Your task to perform on an android device: Open calendar and show me the second week of next month Image 0: 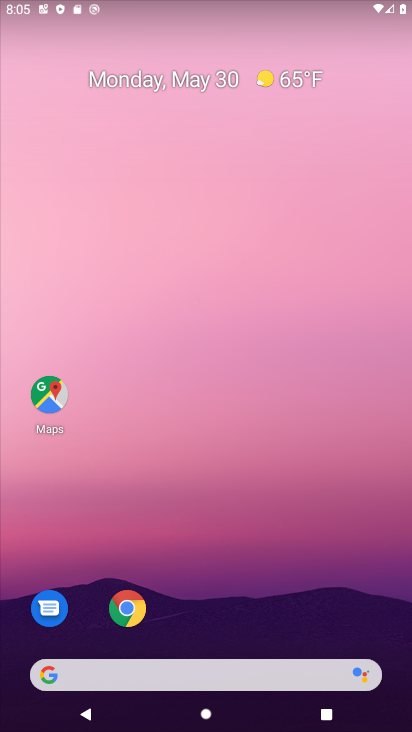
Step 0: drag from (219, 625) to (180, 179)
Your task to perform on an android device: Open calendar and show me the second week of next month Image 1: 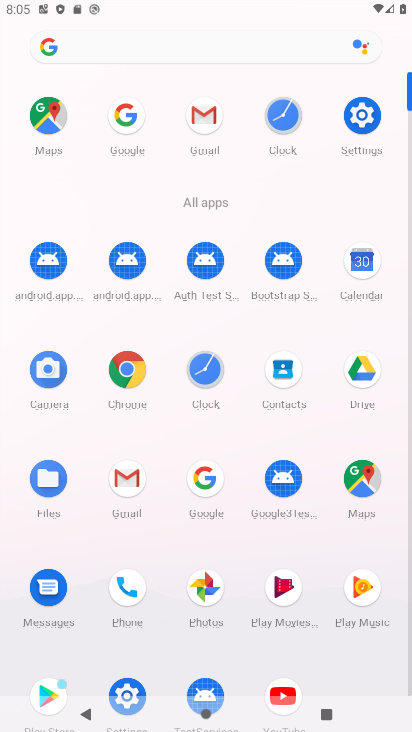
Step 1: click (343, 282)
Your task to perform on an android device: Open calendar and show me the second week of next month Image 2: 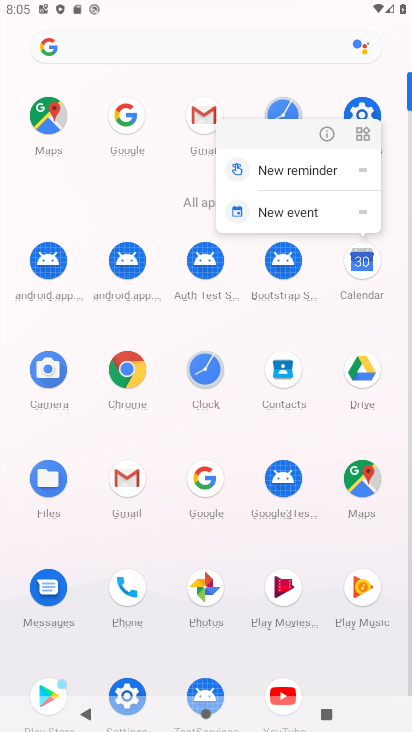
Step 2: click (343, 282)
Your task to perform on an android device: Open calendar and show me the second week of next month Image 3: 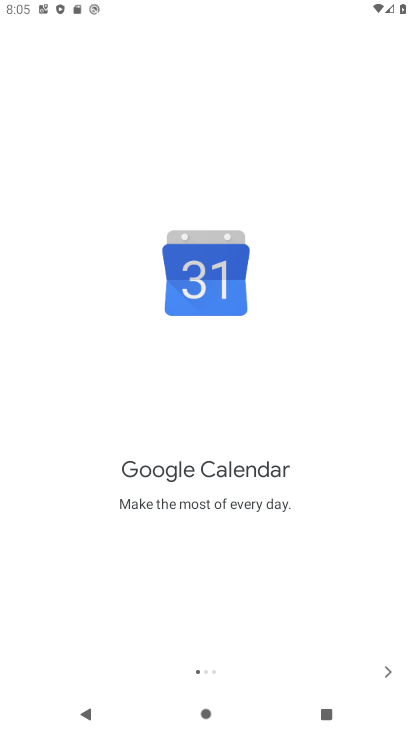
Step 3: click (378, 671)
Your task to perform on an android device: Open calendar and show me the second week of next month Image 4: 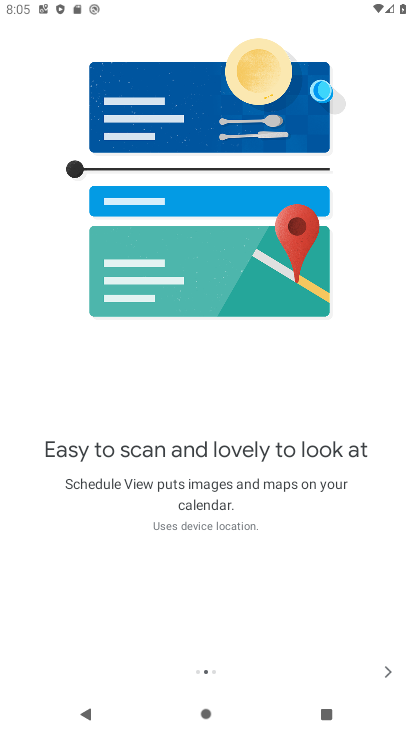
Step 4: click (378, 671)
Your task to perform on an android device: Open calendar and show me the second week of next month Image 5: 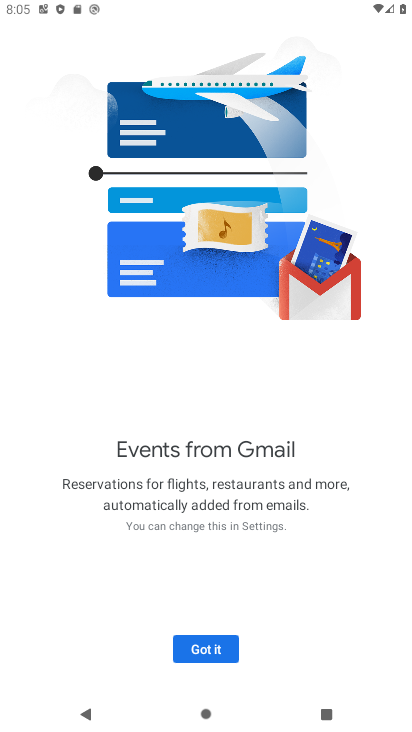
Step 5: click (218, 644)
Your task to perform on an android device: Open calendar and show me the second week of next month Image 6: 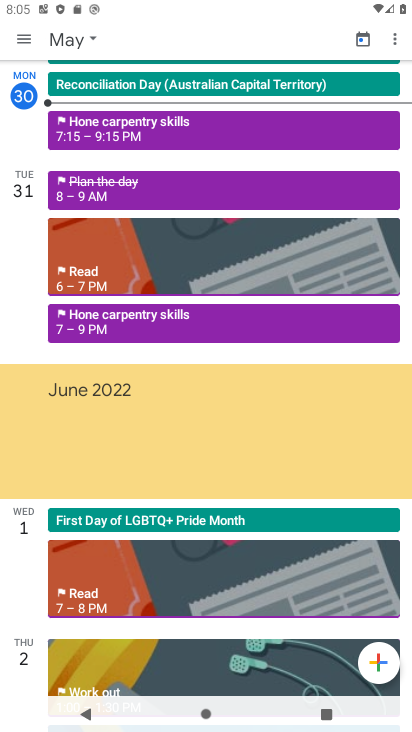
Step 6: click (98, 34)
Your task to perform on an android device: Open calendar and show me the second week of next month Image 7: 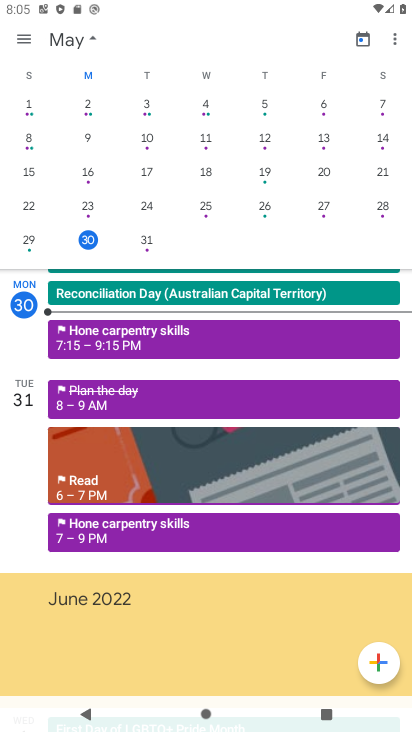
Step 7: drag from (344, 194) to (43, 177)
Your task to perform on an android device: Open calendar and show me the second week of next month Image 8: 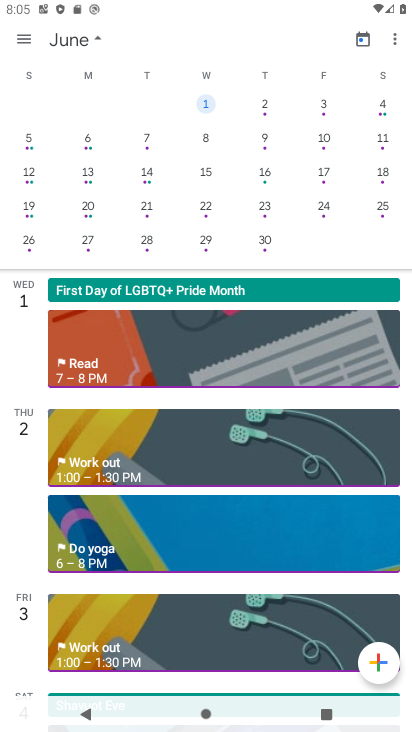
Step 8: click (30, 141)
Your task to perform on an android device: Open calendar and show me the second week of next month Image 9: 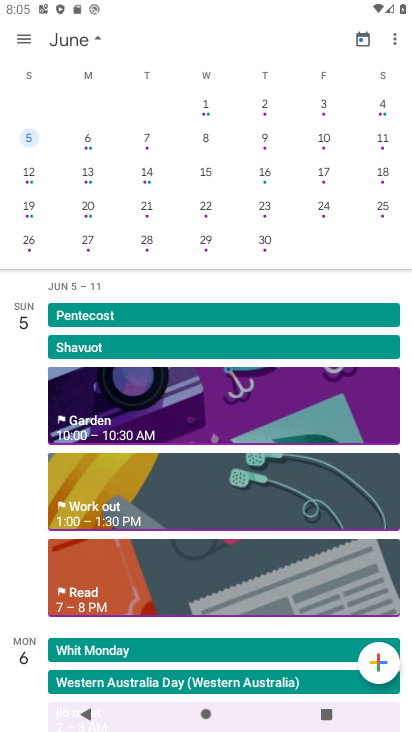
Step 9: task complete